Your task to perform on an android device: Go to calendar. Show me events next week Image 0: 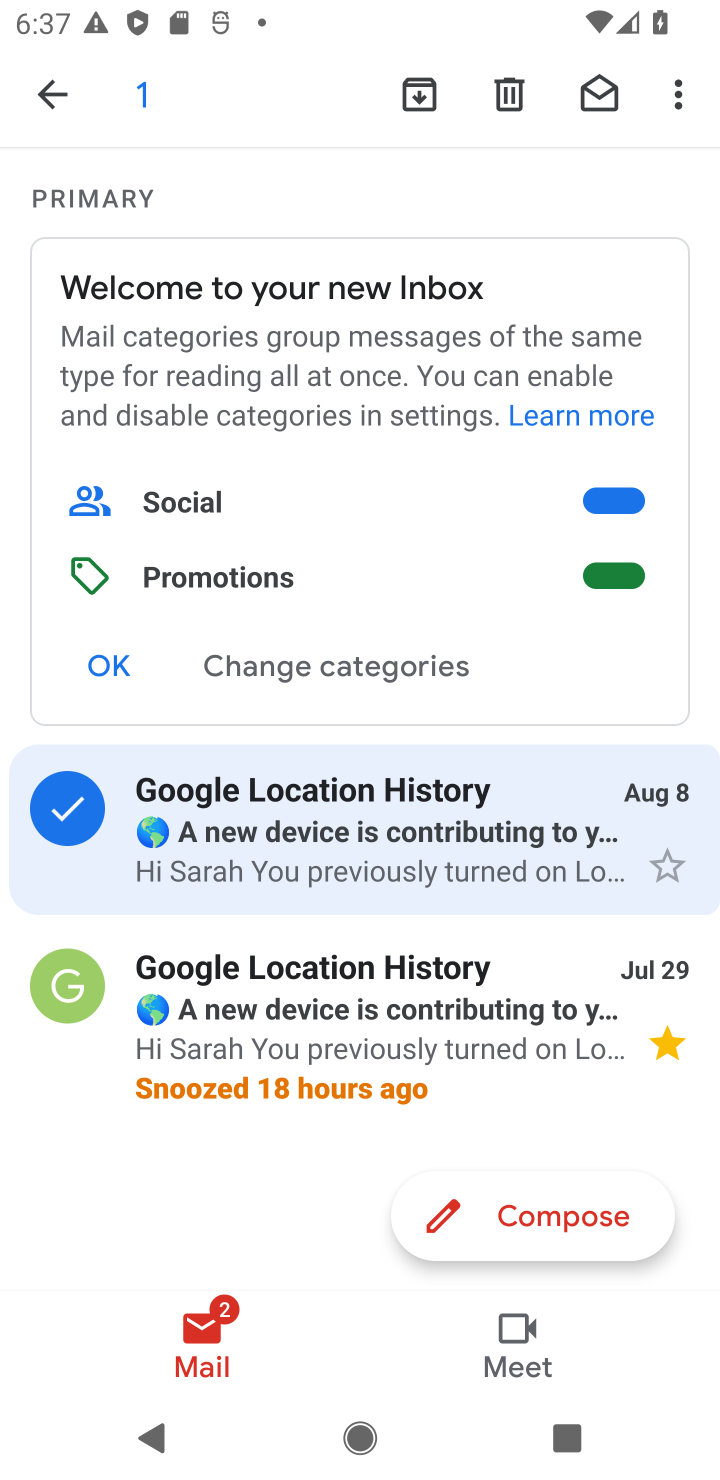
Step 0: press back button
Your task to perform on an android device: Go to calendar. Show me events next week Image 1: 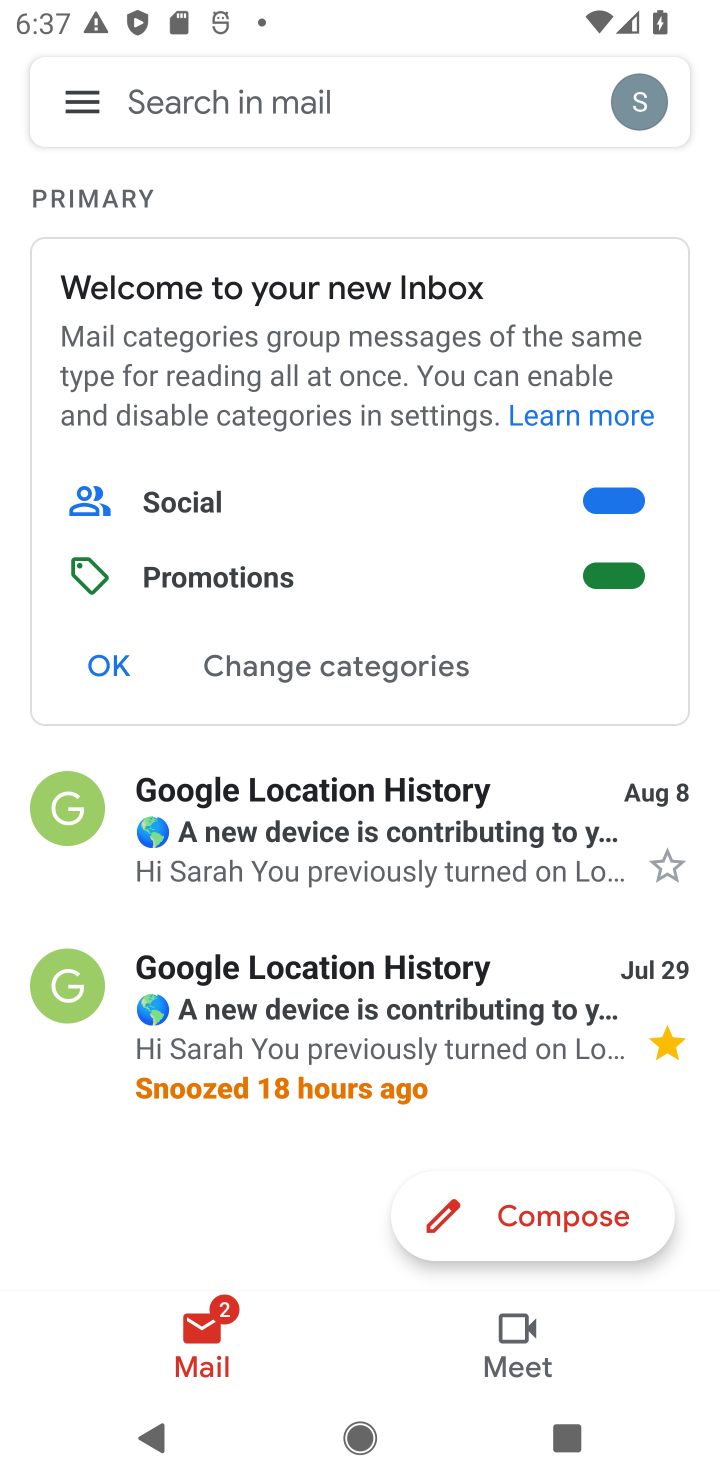
Step 1: press back button
Your task to perform on an android device: Go to calendar. Show me events next week Image 2: 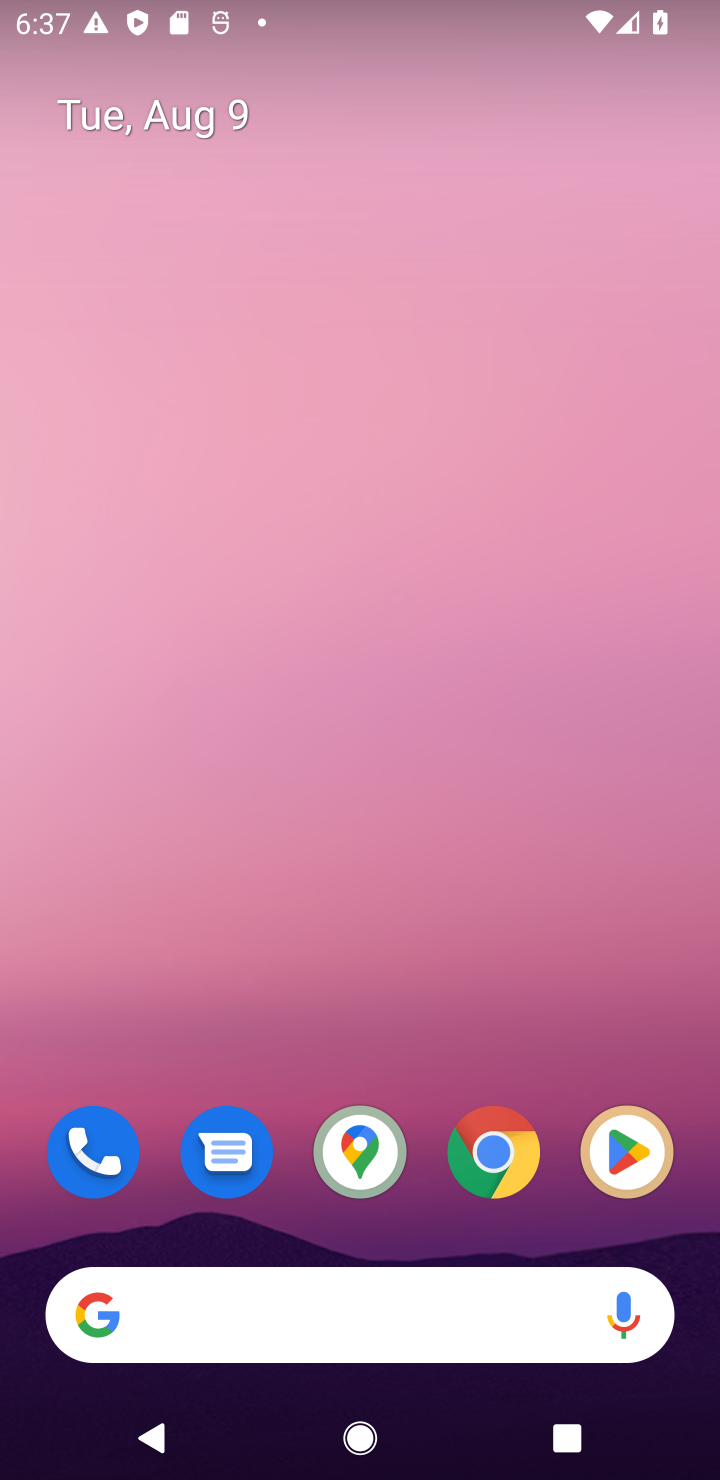
Step 2: drag from (357, 1207) to (581, 9)
Your task to perform on an android device: Go to calendar. Show me events next week Image 3: 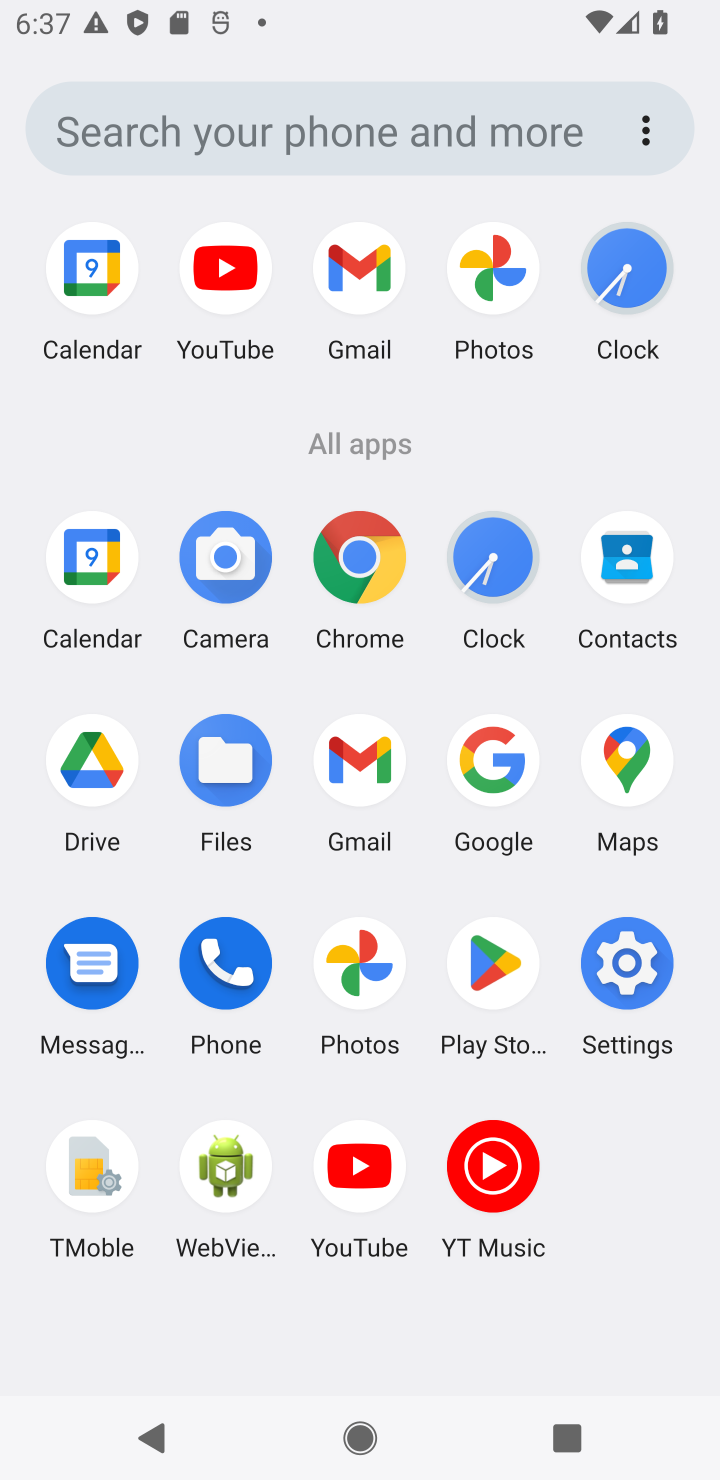
Step 3: click (78, 537)
Your task to perform on an android device: Go to calendar. Show me events next week Image 4: 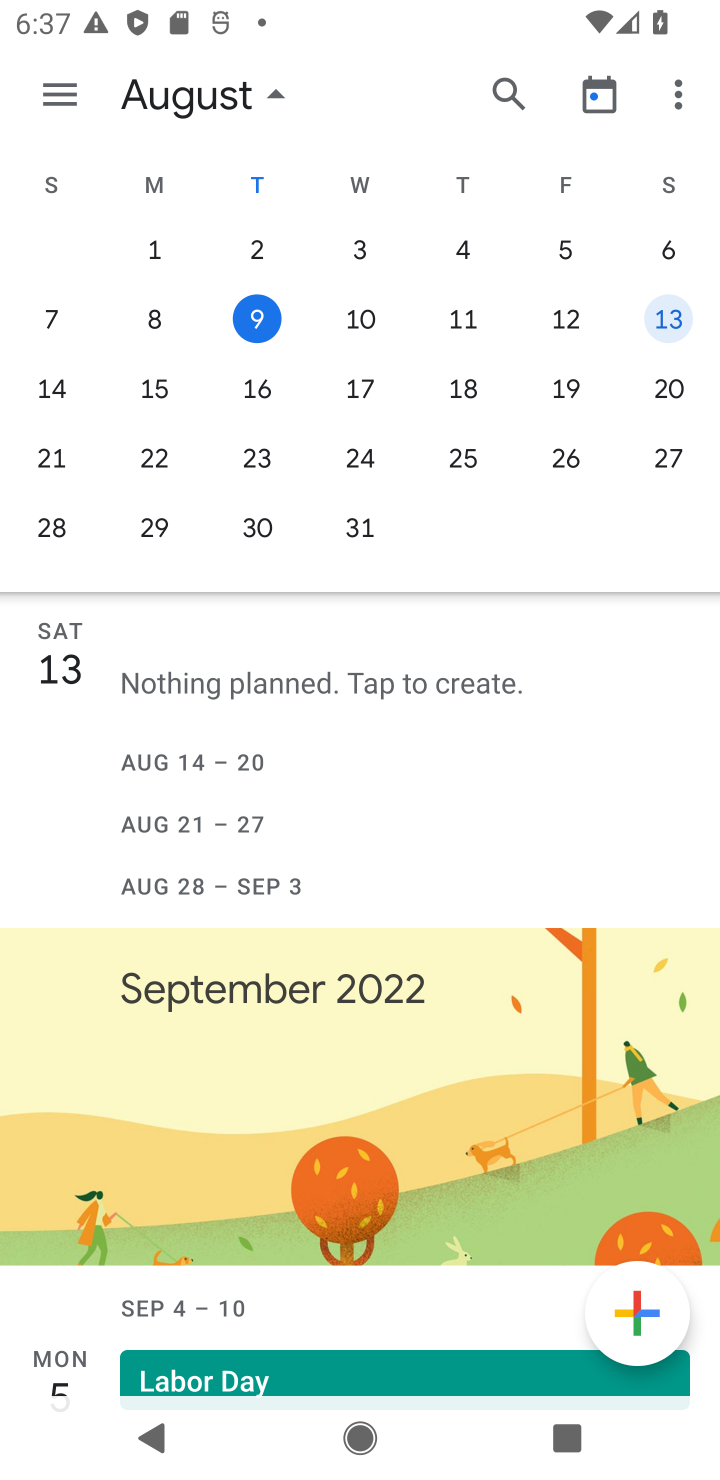
Step 4: click (161, 386)
Your task to perform on an android device: Go to calendar. Show me events next week Image 5: 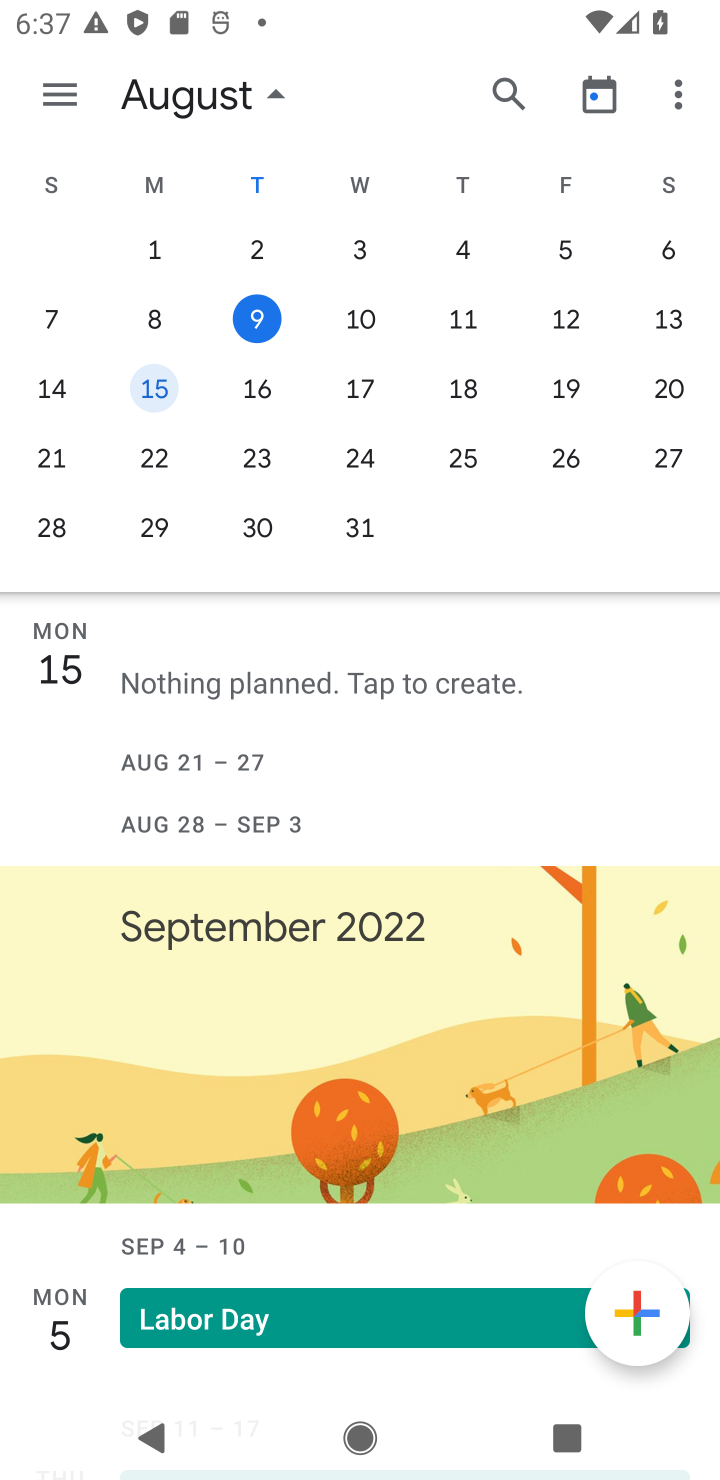
Step 5: task complete